Your task to perform on an android device: turn off javascript in the chrome app Image 0: 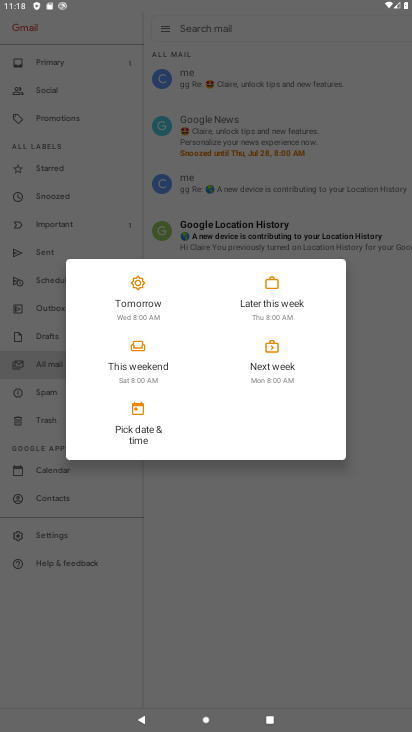
Step 0: drag from (253, 607) to (222, 256)
Your task to perform on an android device: turn off javascript in the chrome app Image 1: 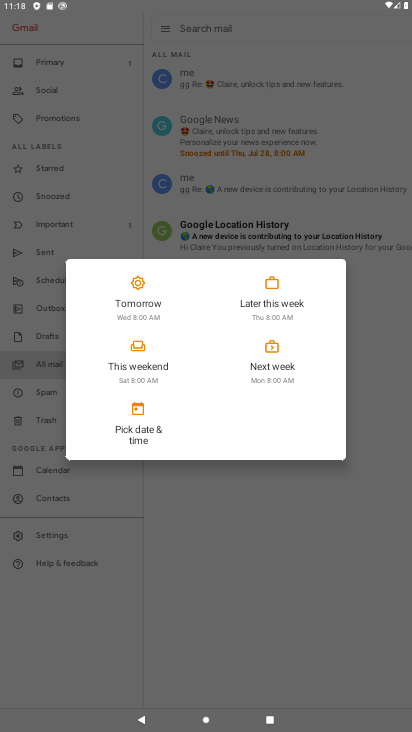
Step 1: click (285, 151)
Your task to perform on an android device: turn off javascript in the chrome app Image 2: 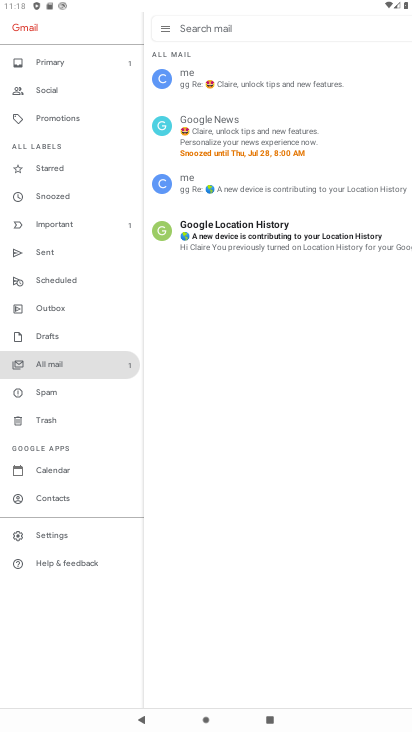
Step 2: press back button
Your task to perform on an android device: turn off javascript in the chrome app Image 3: 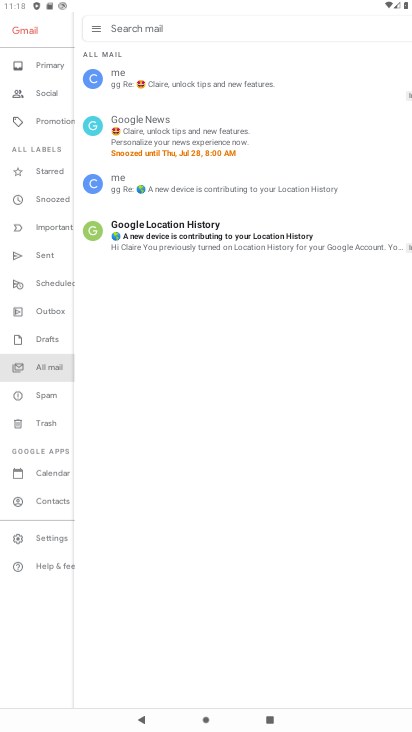
Step 3: press back button
Your task to perform on an android device: turn off javascript in the chrome app Image 4: 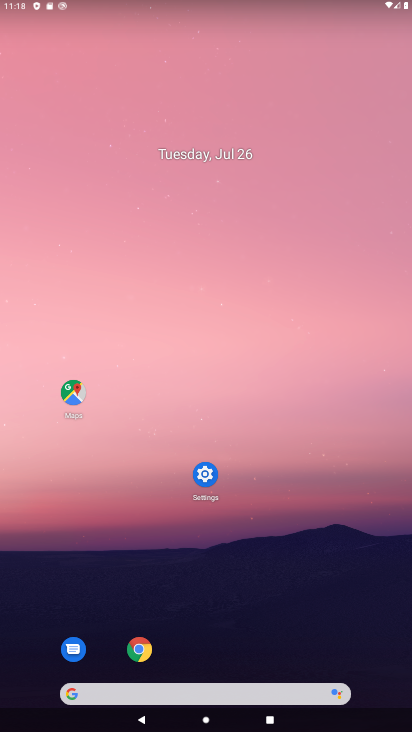
Step 4: drag from (216, 315) to (207, 158)
Your task to perform on an android device: turn off javascript in the chrome app Image 5: 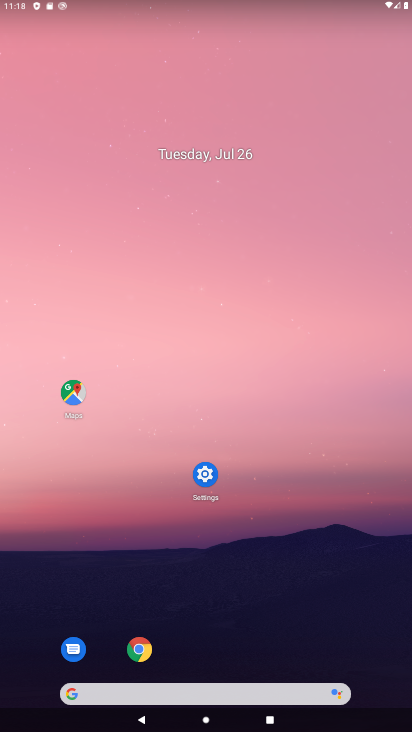
Step 5: drag from (281, 688) to (222, 88)
Your task to perform on an android device: turn off javascript in the chrome app Image 6: 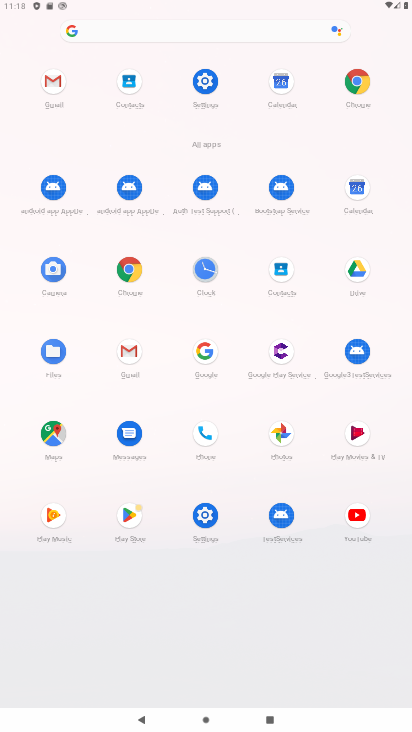
Step 6: drag from (199, 621) to (249, 135)
Your task to perform on an android device: turn off javascript in the chrome app Image 7: 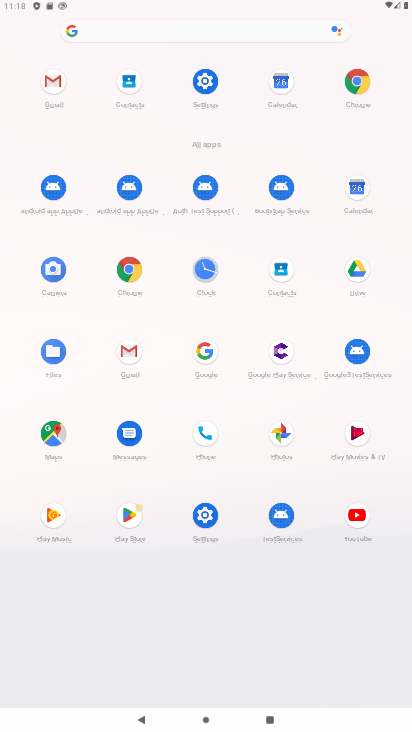
Step 7: click (134, 266)
Your task to perform on an android device: turn off javascript in the chrome app Image 8: 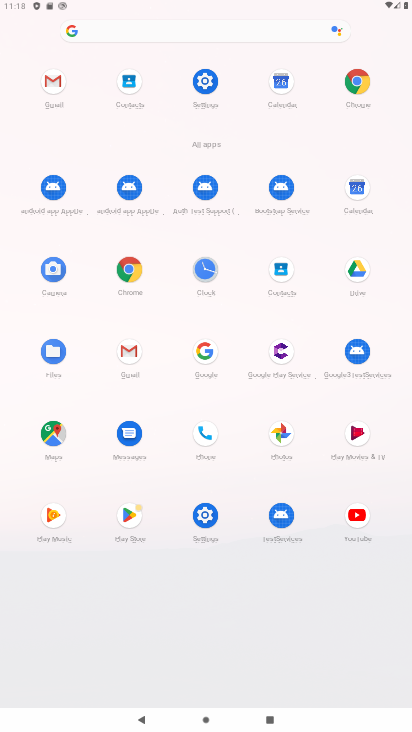
Step 8: click (132, 263)
Your task to perform on an android device: turn off javascript in the chrome app Image 9: 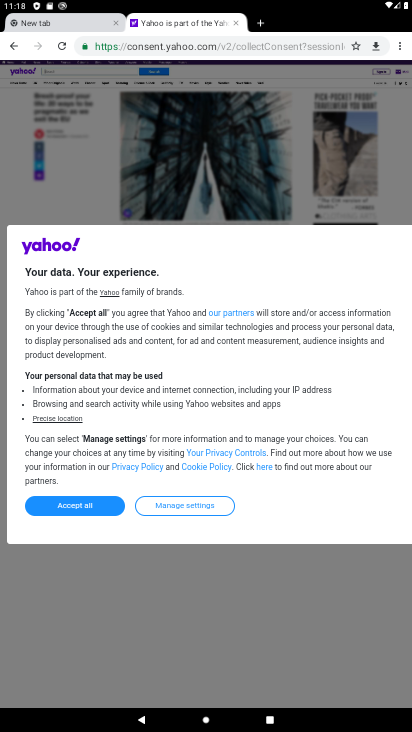
Step 9: click (399, 46)
Your task to perform on an android device: turn off javascript in the chrome app Image 10: 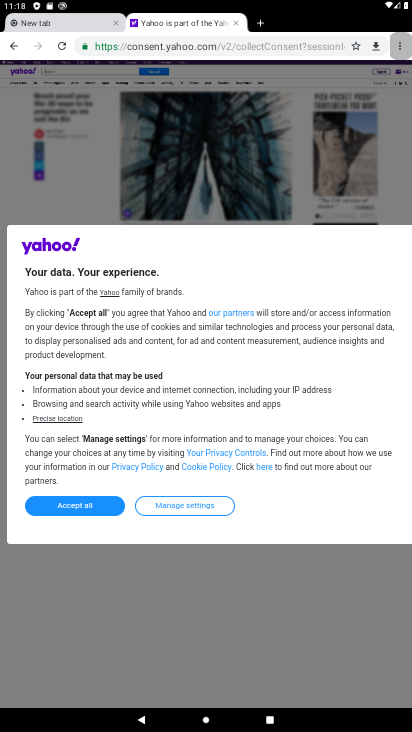
Step 10: click (400, 45)
Your task to perform on an android device: turn off javascript in the chrome app Image 11: 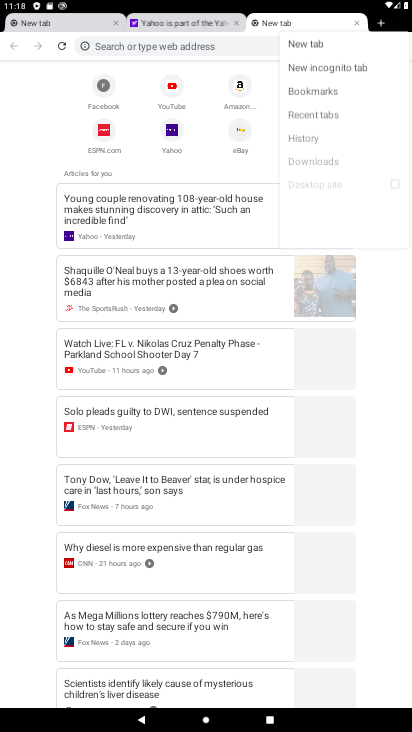
Step 11: drag from (400, 49) to (299, 209)
Your task to perform on an android device: turn off javascript in the chrome app Image 12: 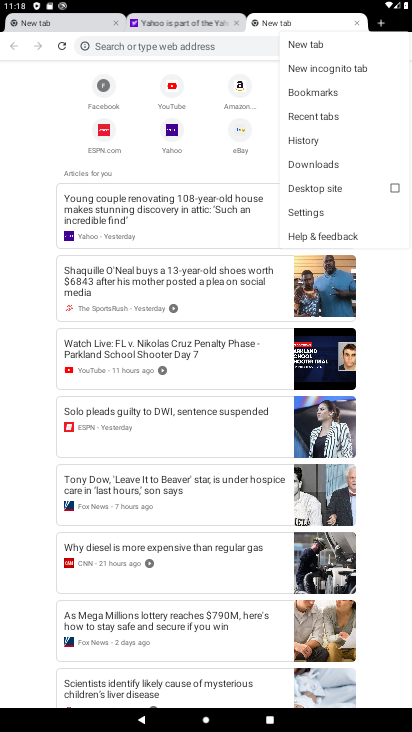
Step 12: click (298, 210)
Your task to perform on an android device: turn off javascript in the chrome app Image 13: 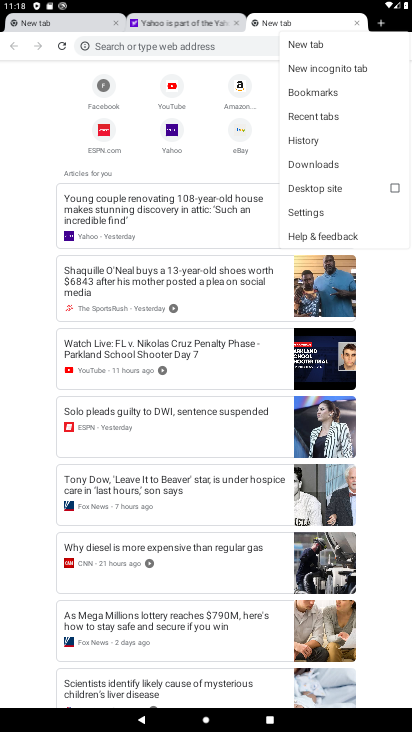
Step 13: click (298, 210)
Your task to perform on an android device: turn off javascript in the chrome app Image 14: 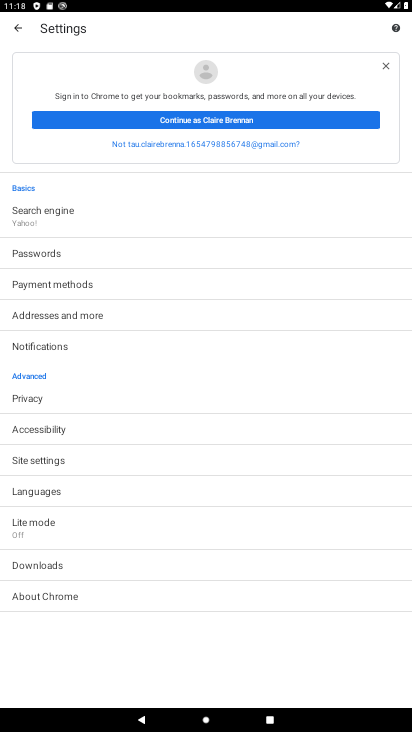
Step 14: drag from (64, 558) to (2, 186)
Your task to perform on an android device: turn off javascript in the chrome app Image 15: 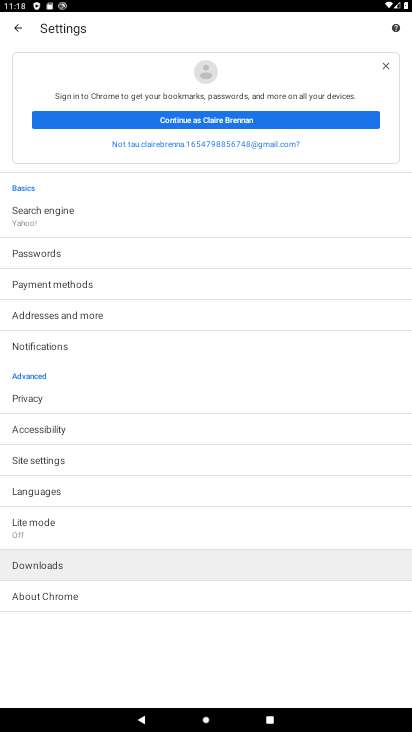
Step 15: drag from (52, 451) to (27, 194)
Your task to perform on an android device: turn off javascript in the chrome app Image 16: 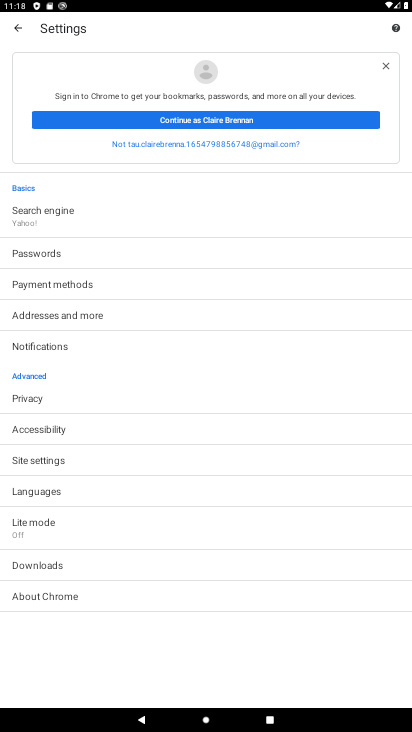
Step 16: drag from (53, 470) to (70, 241)
Your task to perform on an android device: turn off javascript in the chrome app Image 17: 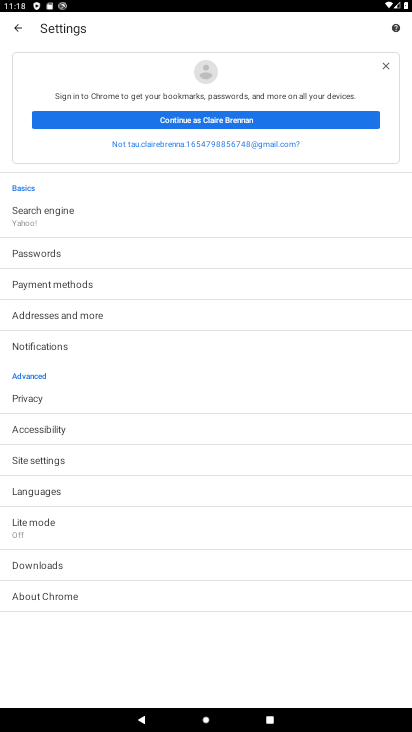
Step 17: click (24, 448)
Your task to perform on an android device: turn off javascript in the chrome app Image 18: 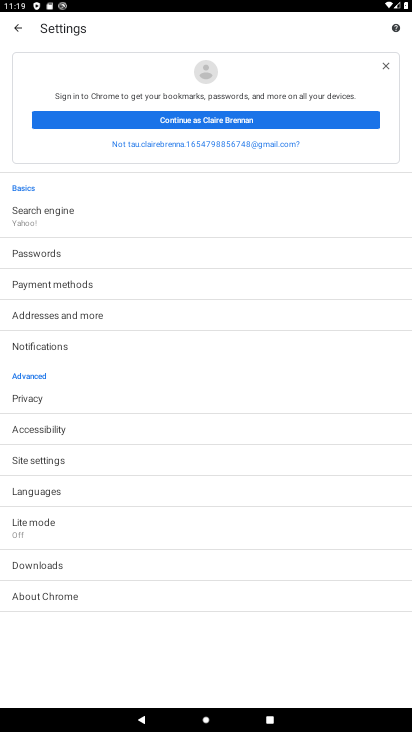
Step 18: click (29, 450)
Your task to perform on an android device: turn off javascript in the chrome app Image 19: 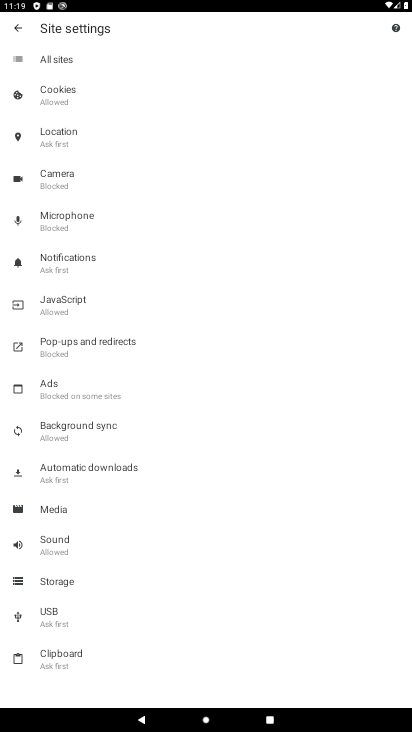
Step 19: click (30, 450)
Your task to perform on an android device: turn off javascript in the chrome app Image 20: 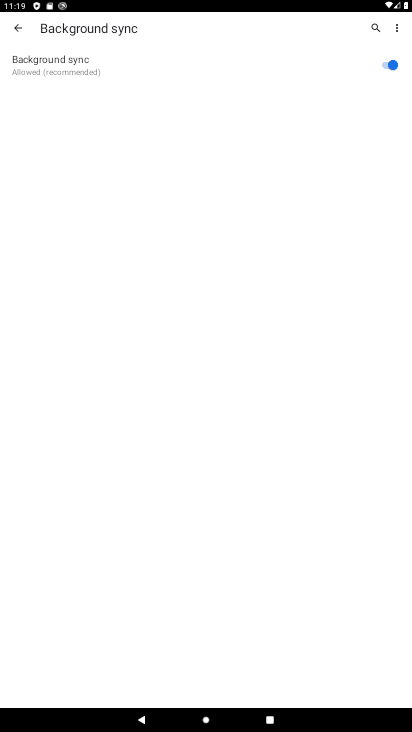
Step 20: click (58, 301)
Your task to perform on an android device: turn off javascript in the chrome app Image 21: 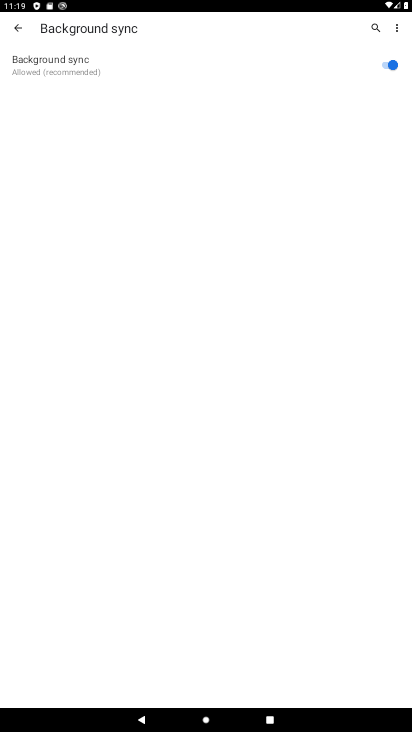
Step 21: click (21, 36)
Your task to perform on an android device: turn off javascript in the chrome app Image 22: 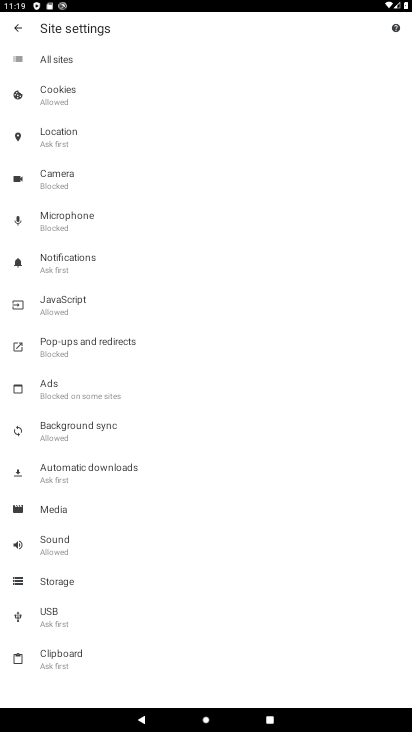
Step 22: click (57, 296)
Your task to perform on an android device: turn off javascript in the chrome app Image 23: 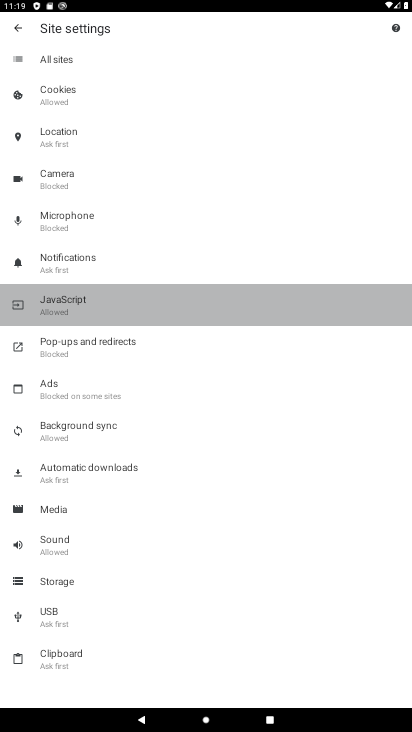
Step 23: click (59, 296)
Your task to perform on an android device: turn off javascript in the chrome app Image 24: 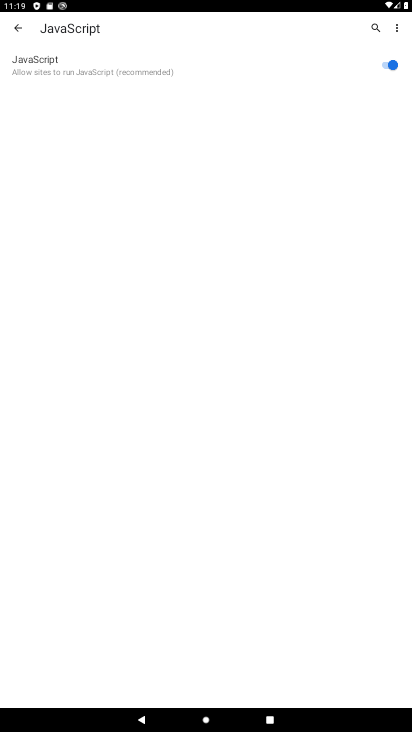
Step 24: task complete